Your task to perform on an android device: toggle notifications settings in the gmail app Image 0: 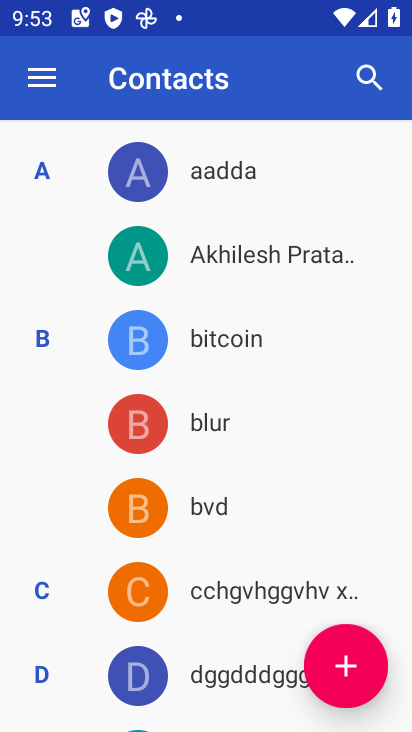
Step 0: press home button
Your task to perform on an android device: toggle notifications settings in the gmail app Image 1: 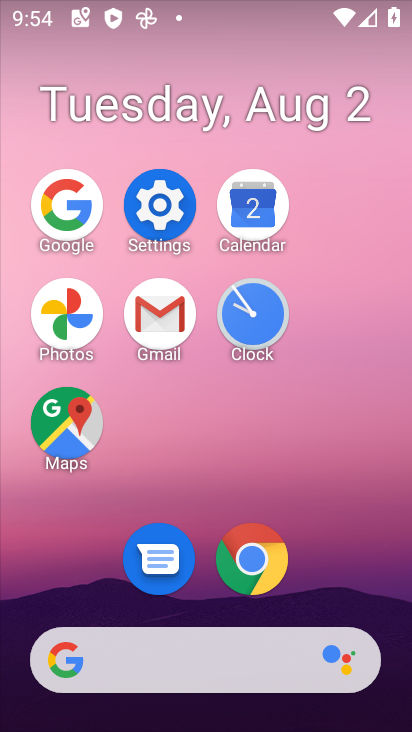
Step 1: click (174, 206)
Your task to perform on an android device: toggle notifications settings in the gmail app Image 2: 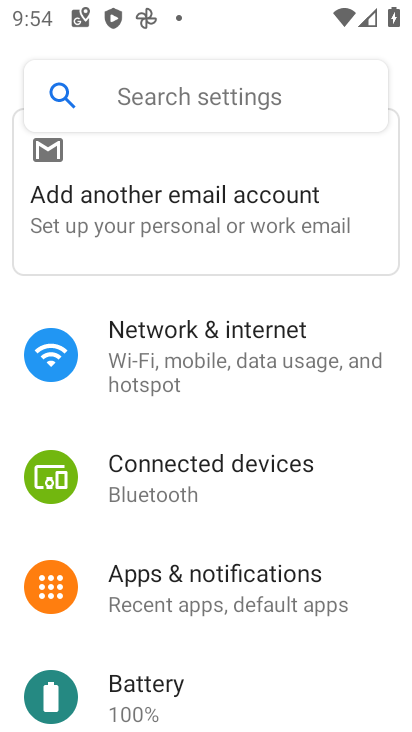
Step 2: press back button
Your task to perform on an android device: toggle notifications settings in the gmail app Image 3: 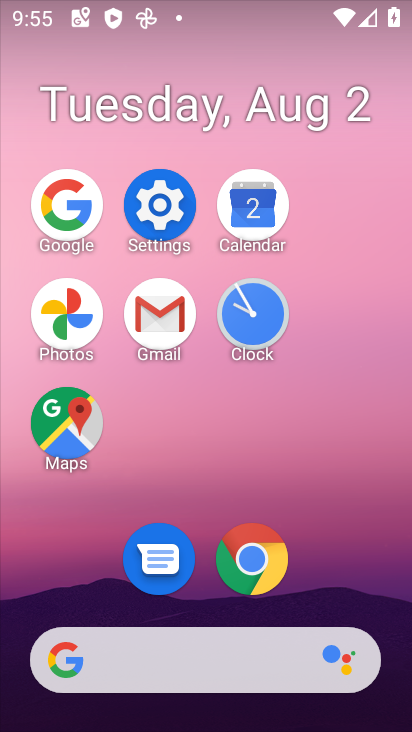
Step 3: click (166, 211)
Your task to perform on an android device: toggle notifications settings in the gmail app Image 4: 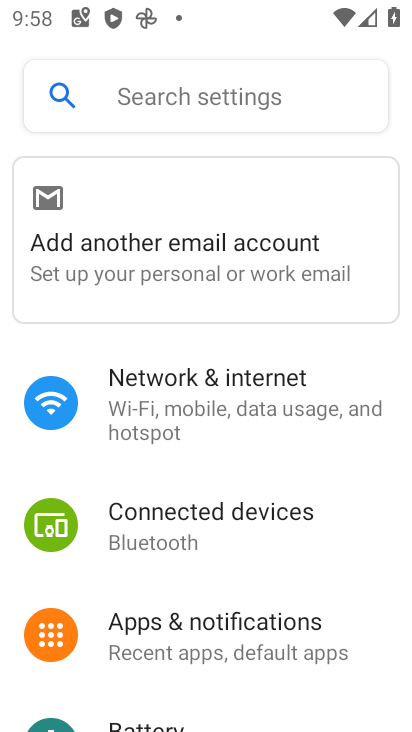
Step 4: click (194, 633)
Your task to perform on an android device: toggle notifications settings in the gmail app Image 5: 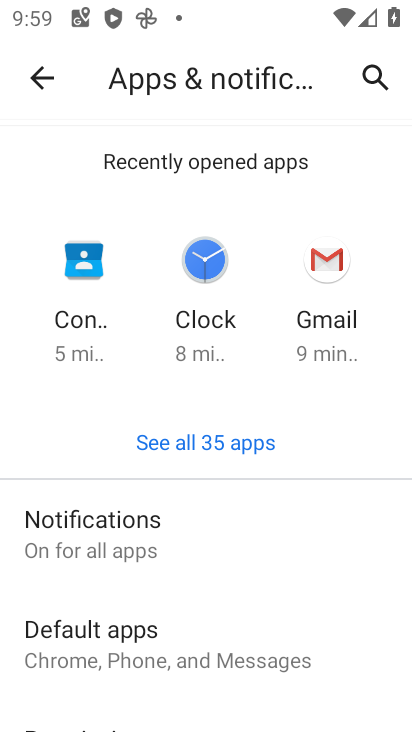
Step 5: press back button
Your task to perform on an android device: toggle notifications settings in the gmail app Image 6: 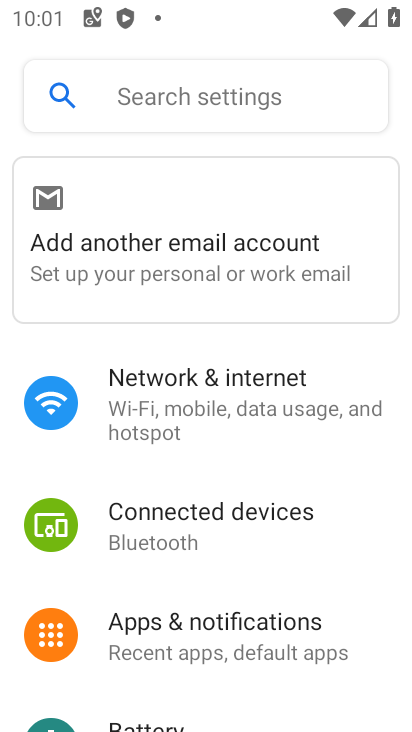
Step 6: press back button
Your task to perform on an android device: toggle notifications settings in the gmail app Image 7: 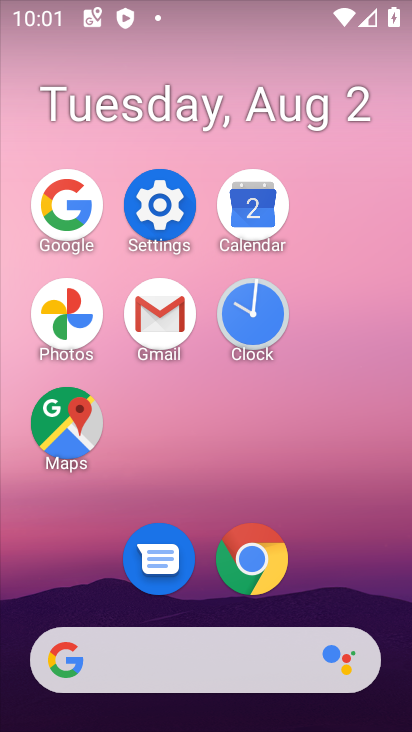
Step 7: click (157, 296)
Your task to perform on an android device: toggle notifications settings in the gmail app Image 8: 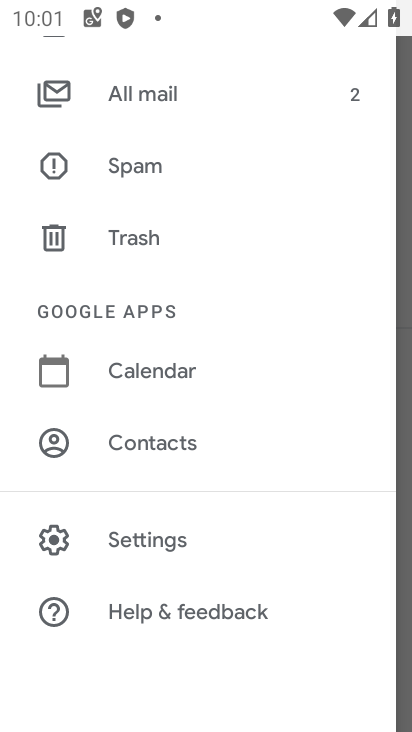
Step 8: click (231, 550)
Your task to perform on an android device: toggle notifications settings in the gmail app Image 9: 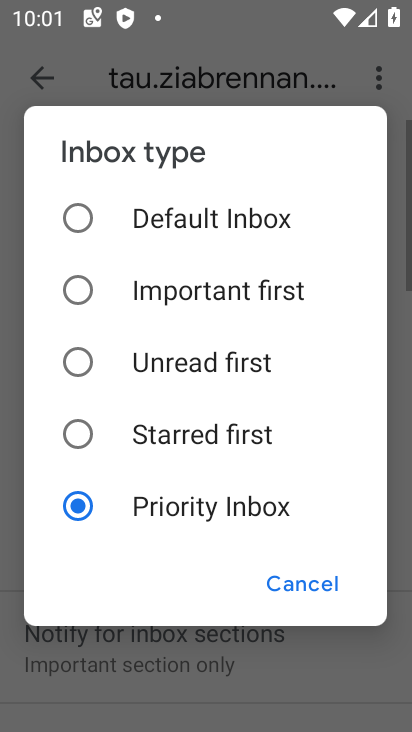
Step 9: click (303, 568)
Your task to perform on an android device: toggle notifications settings in the gmail app Image 10: 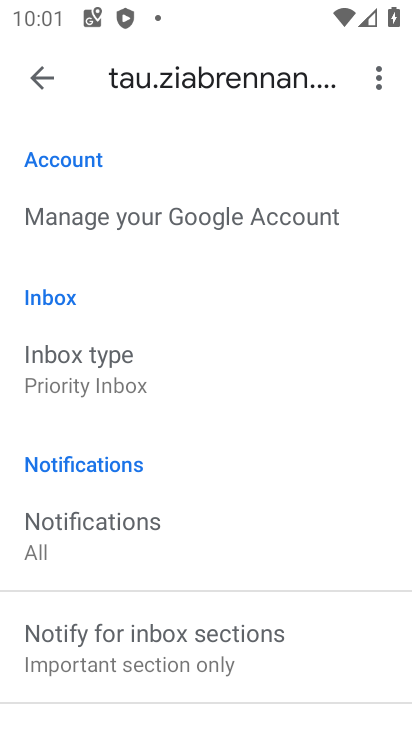
Step 10: click (260, 535)
Your task to perform on an android device: toggle notifications settings in the gmail app Image 11: 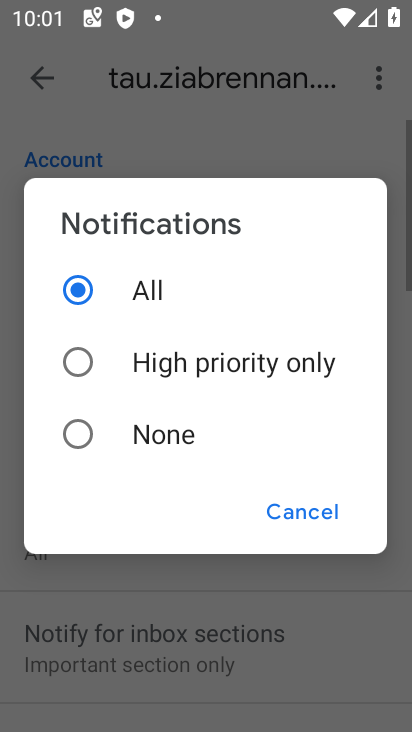
Step 11: click (239, 362)
Your task to perform on an android device: toggle notifications settings in the gmail app Image 12: 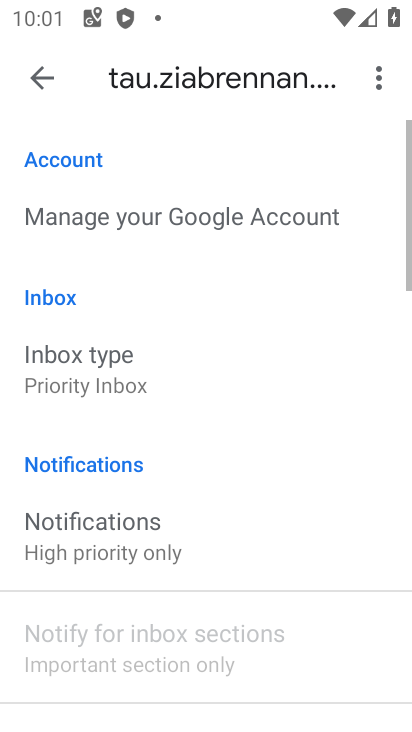
Step 12: task complete